Your task to perform on an android device: change keyboard looks Image 0: 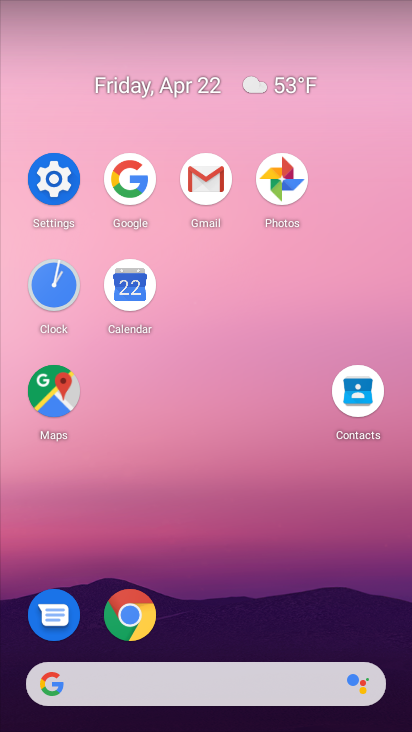
Step 0: click (54, 163)
Your task to perform on an android device: change keyboard looks Image 1: 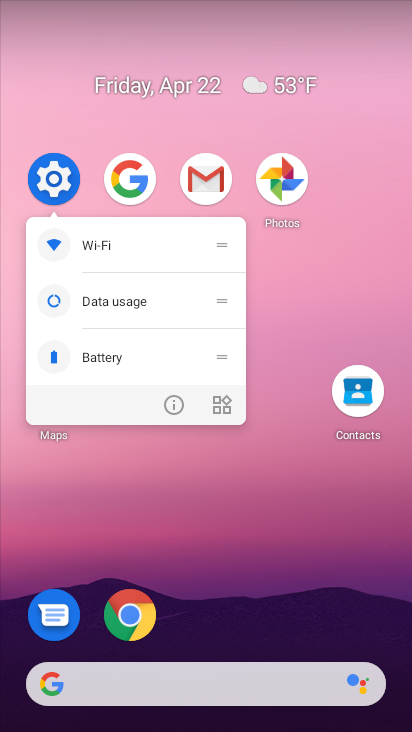
Step 1: click (54, 163)
Your task to perform on an android device: change keyboard looks Image 2: 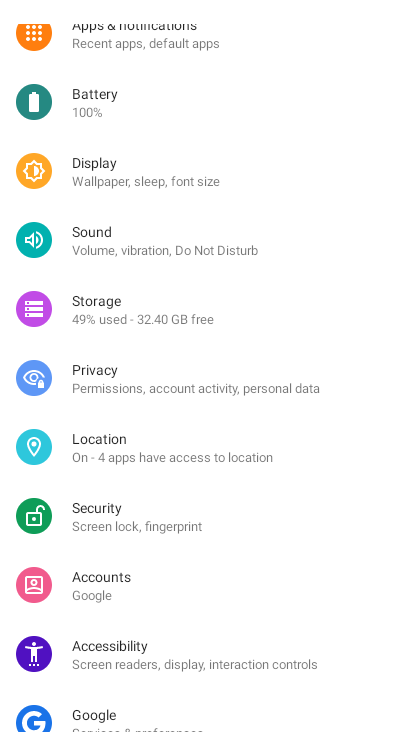
Step 2: drag from (237, 602) to (187, 169)
Your task to perform on an android device: change keyboard looks Image 3: 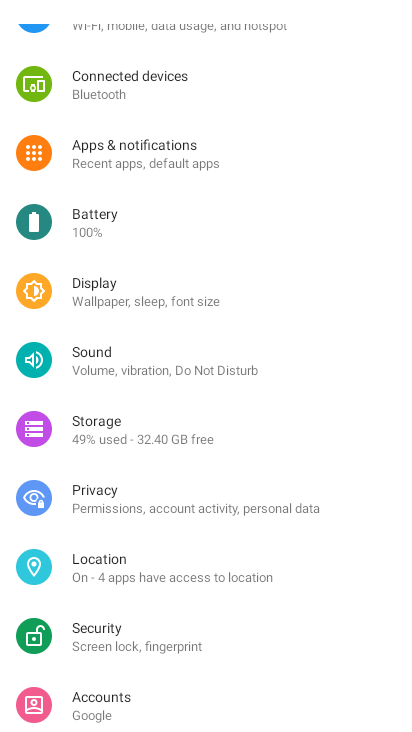
Step 3: drag from (227, 617) to (213, 203)
Your task to perform on an android device: change keyboard looks Image 4: 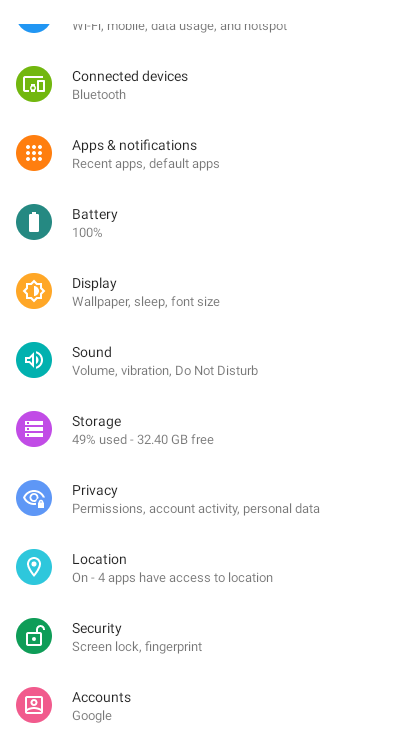
Step 4: drag from (291, 630) to (284, 228)
Your task to perform on an android device: change keyboard looks Image 5: 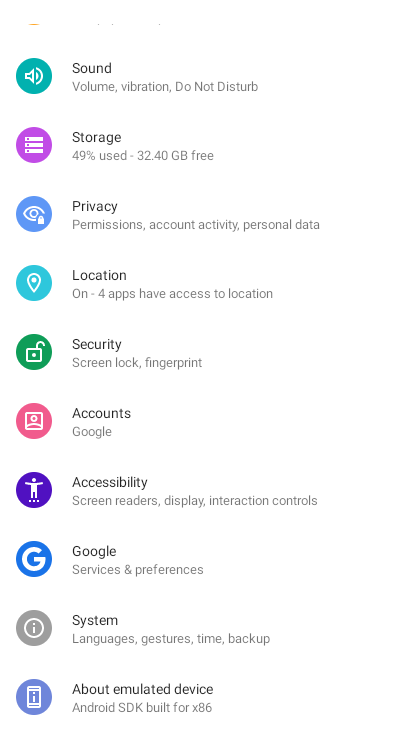
Step 5: click (190, 619)
Your task to perform on an android device: change keyboard looks Image 6: 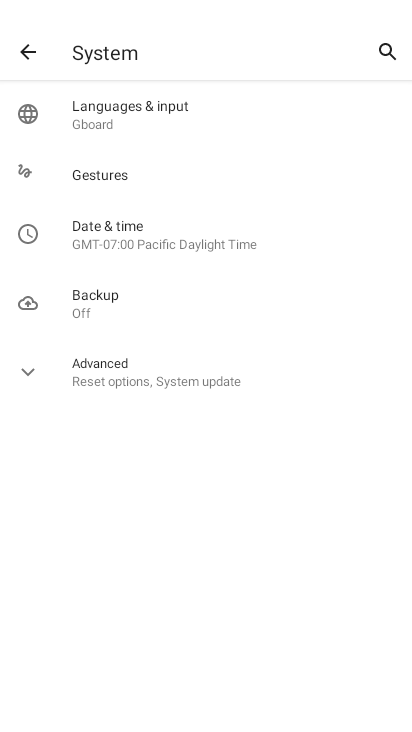
Step 6: click (141, 119)
Your task to perform on an android device: change keyboard looks Image 7: 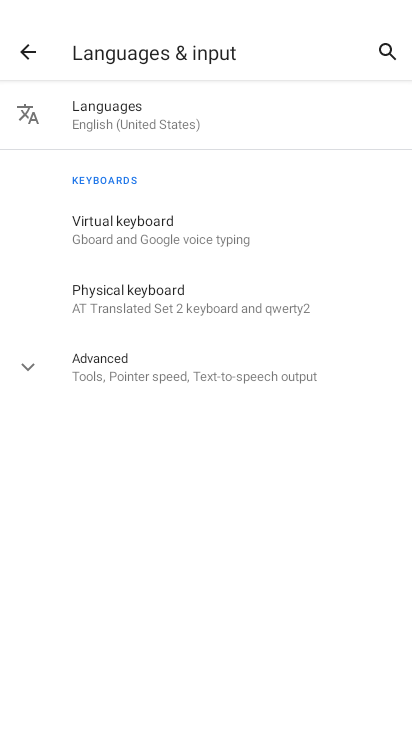
Step 7: click (155, 210)
Your task to perform on an android device: change keyboard looks Image 8: 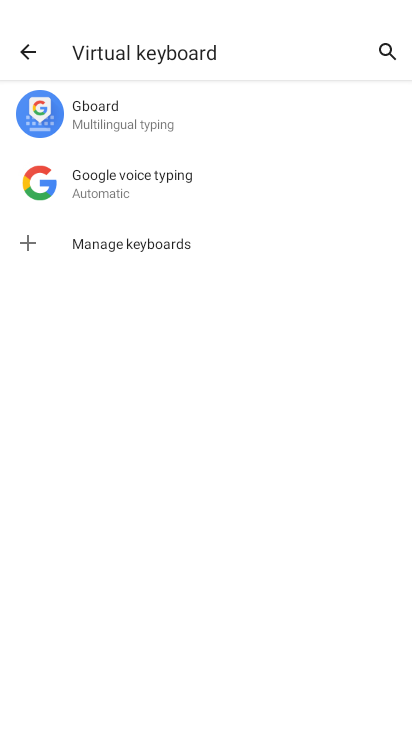
Step 8: click (147, 128)
Your task to perform on an android device: change keyboard looks Image 9: 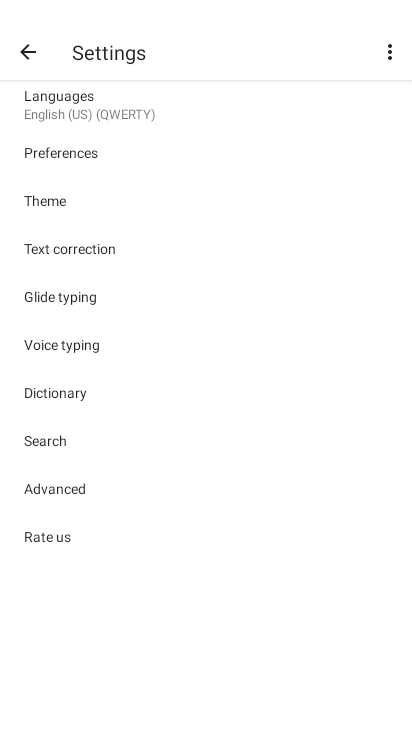
Step 9: click (79, 205)
Your task to perform on an android device: change keyboard looks Image 10: 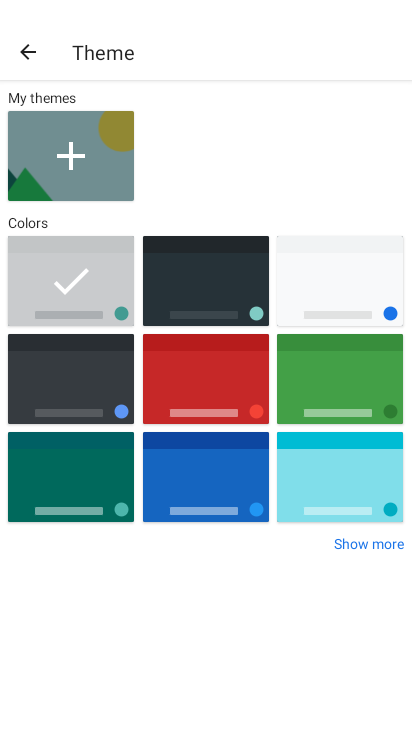
Step 10: click (259, 307)
Your task to perform on an android device: change keyboard looks Image 11: 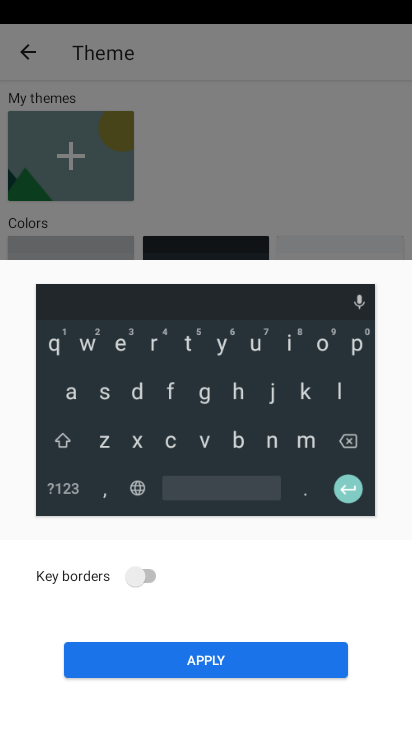
Step 11: click (151, 574)
Your task to perform on an android device: change keyboard looks Image 12: 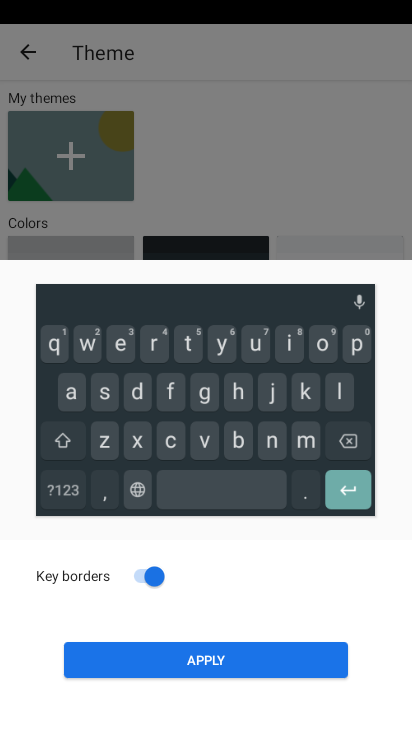
Step 12: click (264, 657)
Your task to perform on an android device: change keyboard looks Image 13: 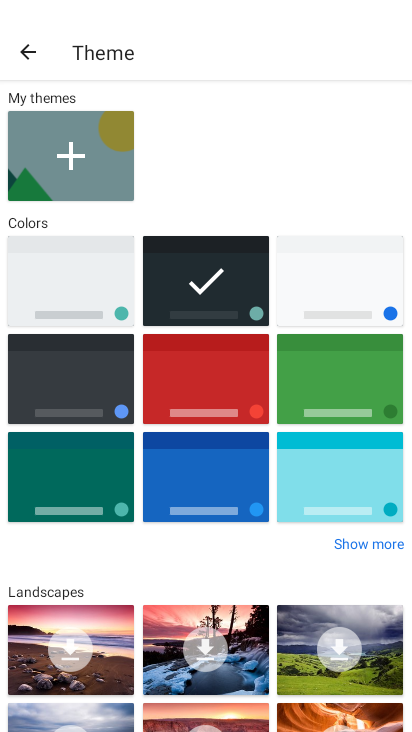
Step 13: task complete